Your task to perform on an android device: Open accessibility settings Image 0: 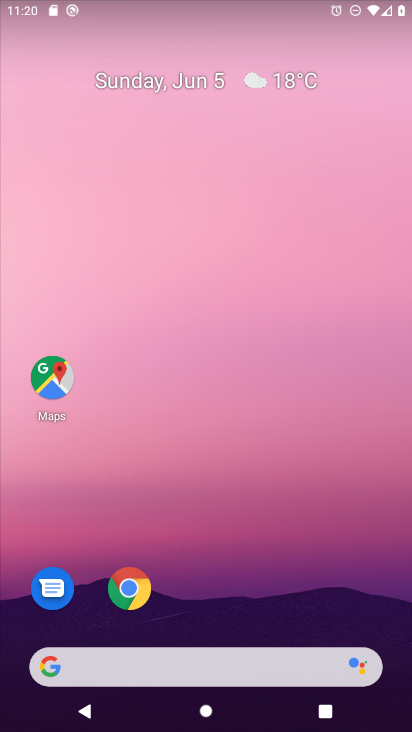
Step 0: drag from (378, 589) to (377, 207)
Your task to perform on an android device: Open accessibility settings Image 1: 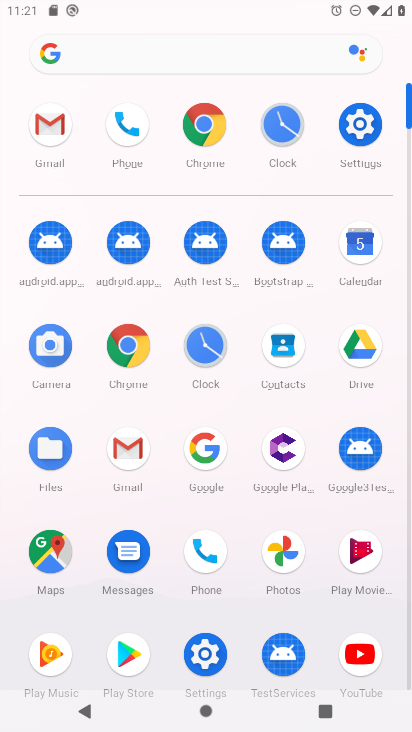
Step 1: click (368, 130)
Your task to perform on an android device: Open accessibility settings Image 2: 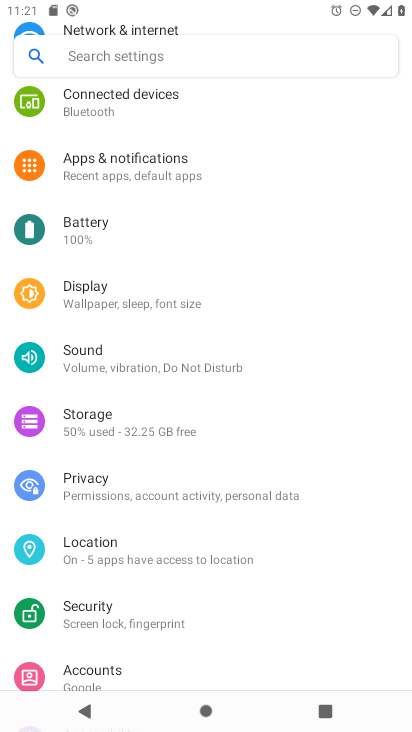
Step 2: drag from (354, 249) to (361, 343)
Your task to perform on an android device: Open accessibility settings Image 3: 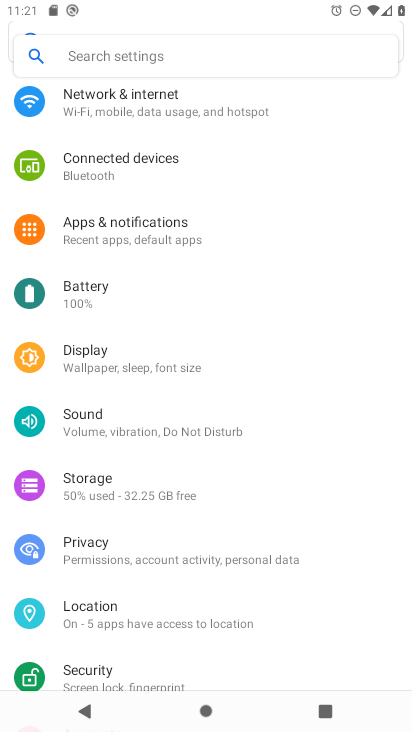
Step 3: drag from (351, 177) to (355, 292)
Your task to perform on an android device: Open accessibility settings Image 4: 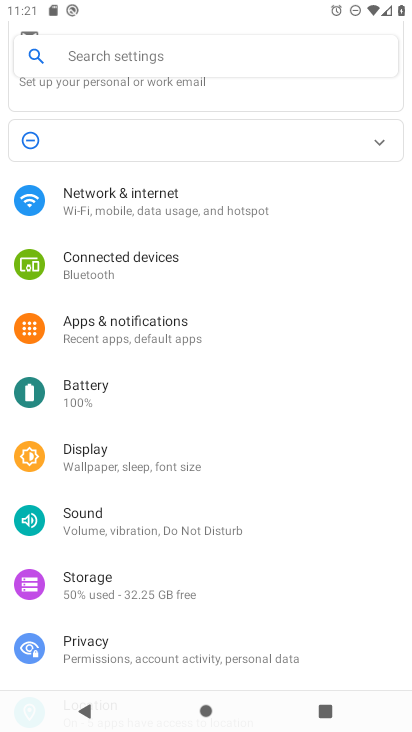
Step 4: drag from (328, 337) to (330, 231)
Your task to perform on an android device: Open accessibility settings Image 5: 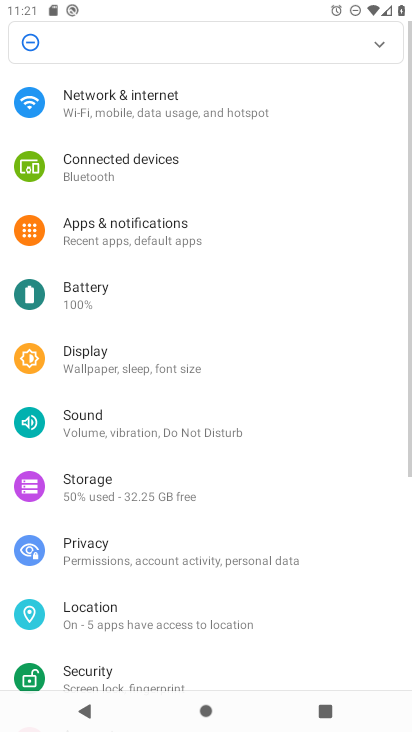
Step 5: drag from (336, 398) to (339, 287)
Your task to perform on an android device: Open accessibility settings Image 6: 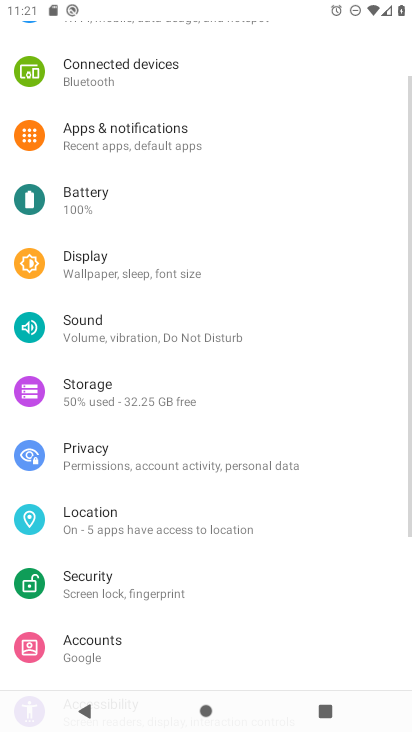
Step 6: drag from (328, 415) to (331, 318)
Your task to perform on an android device: Open accessibility settings Image 7: 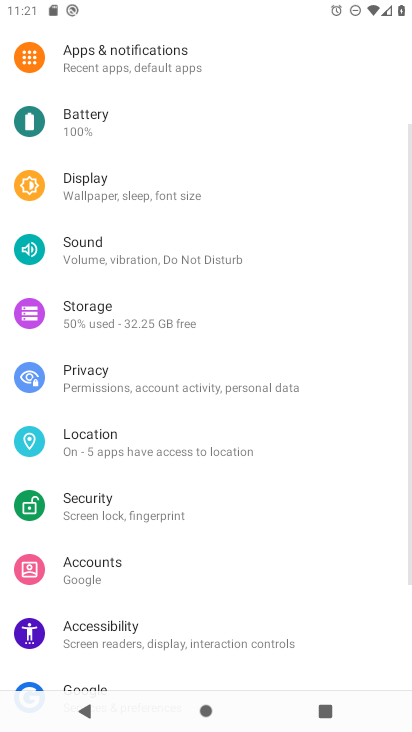
Step 7: drag from (332, 449) to (352, 326)
Your task to perform on an android device: Open accessibility settings Image 8: 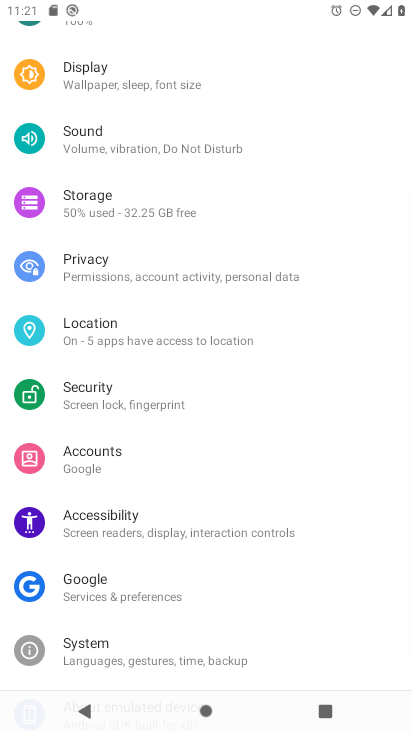
Step 8: drag from (353, 489) to (344, 289)
Your task to perform on an android device: Open accessibility settings Image 9: 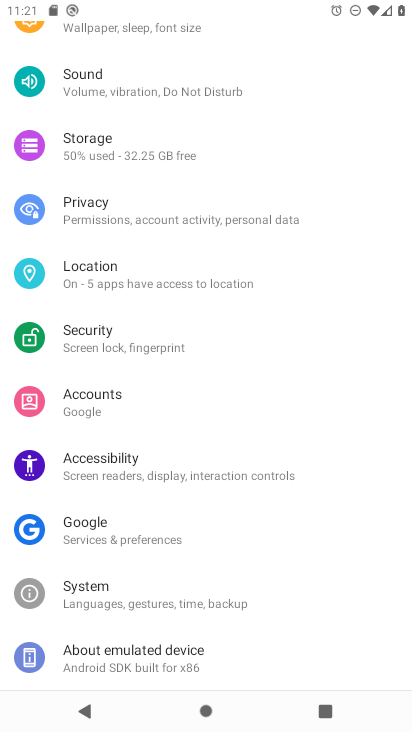
Step 9: click (287, 461)
Your task to perform on an android device: Open accessibility settings Image 10: 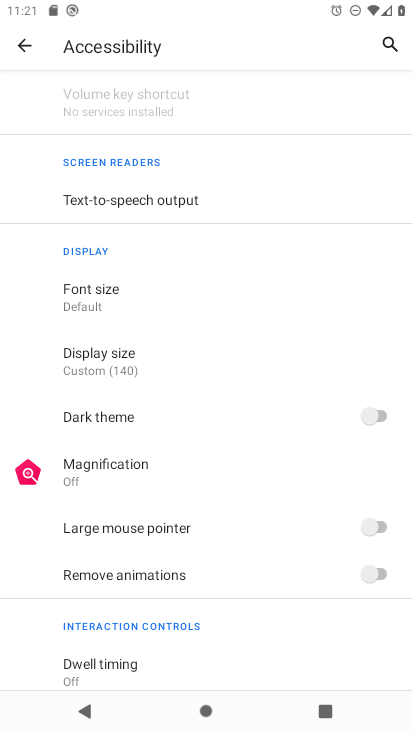
Step 10: task complete